Your task to perform on an android device: read, delete, or share a saved page in the chrome app Image 0: 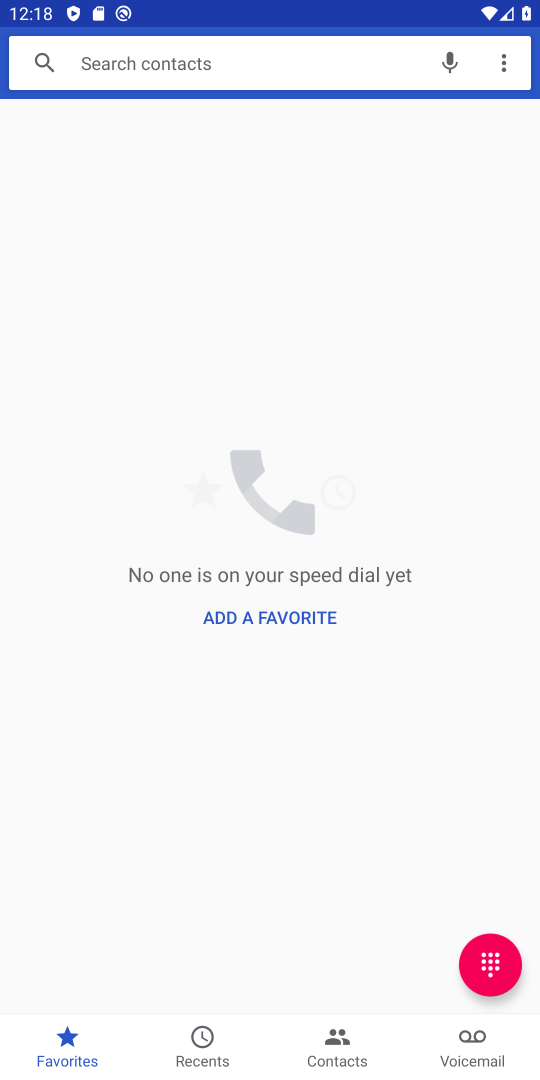
Step 0: press home button
Your task to perform on an android device: read, delete, or share a saved page in the chrome app Image 1: 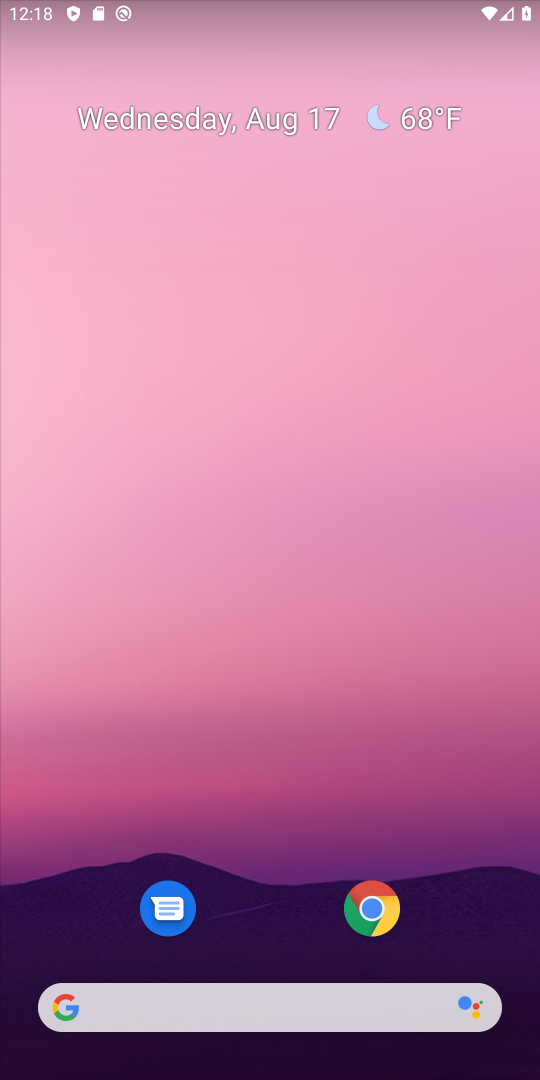
Step 1: click (355, 929)
Your task to perform on an android device: read, delete, or share a saved page in the chrome app Image 2: 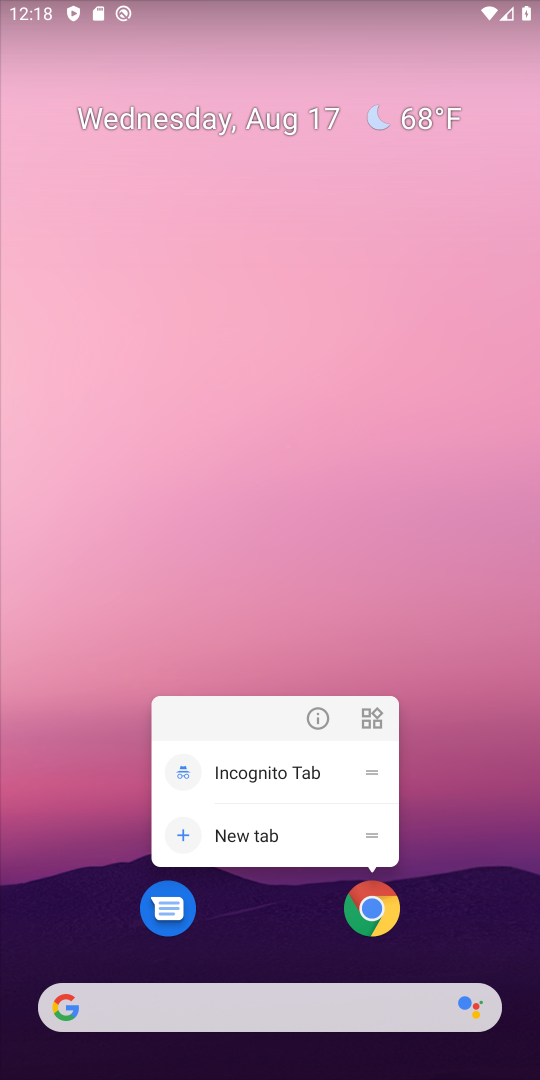
Step 2: click (386, 901)
Your task to perform on an android device: read, delete, or share a saved page in the chrome app Image 3: 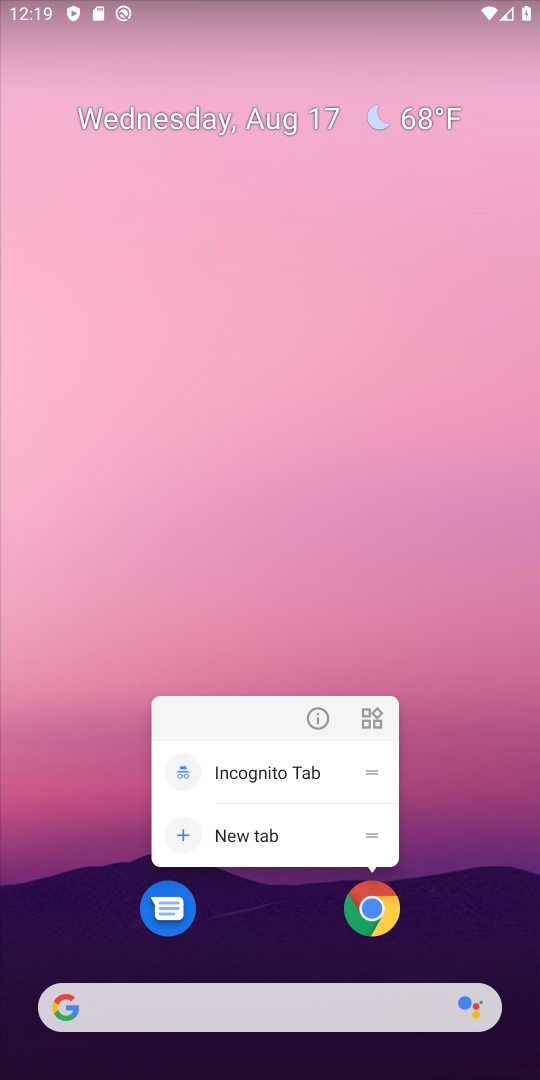
Step 3: click (391, 892)
Your task to perform on an android device: read, delete, or share a saved page in the chrome app Image 4: 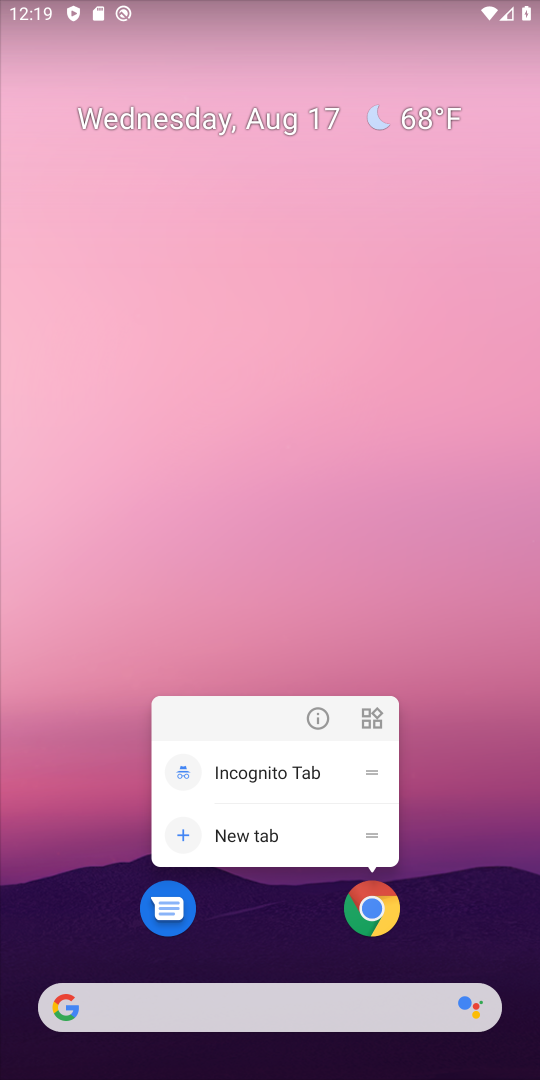
Step 4: click (360, 893)
Your task to perform on an android device: read, delete, or share a saved page in the chrome app Image 5: 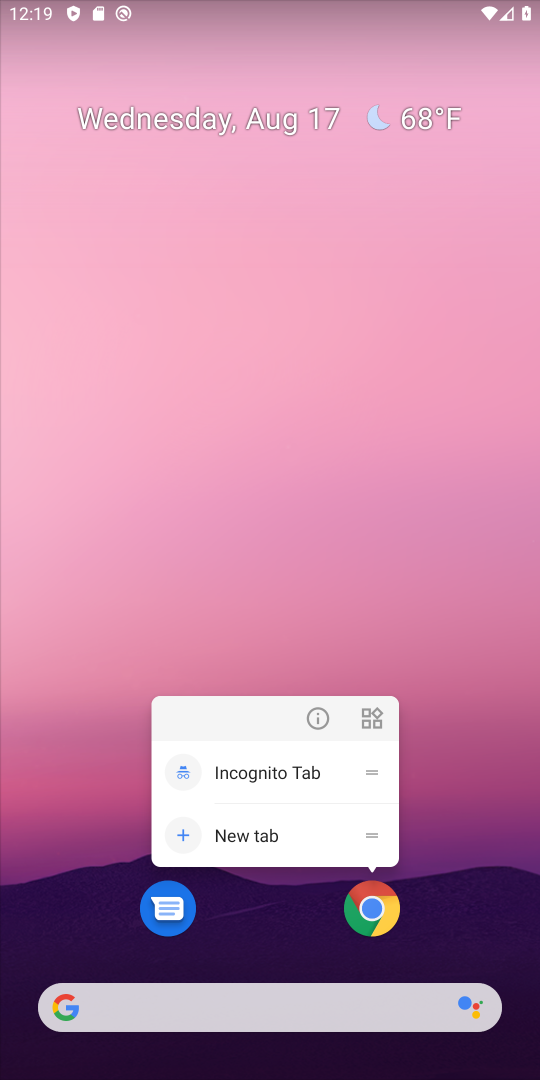
Step 5: click (375, 910)
Your task to perform on an android device: read, delete, or share a saved page in the chrome app Image 6: 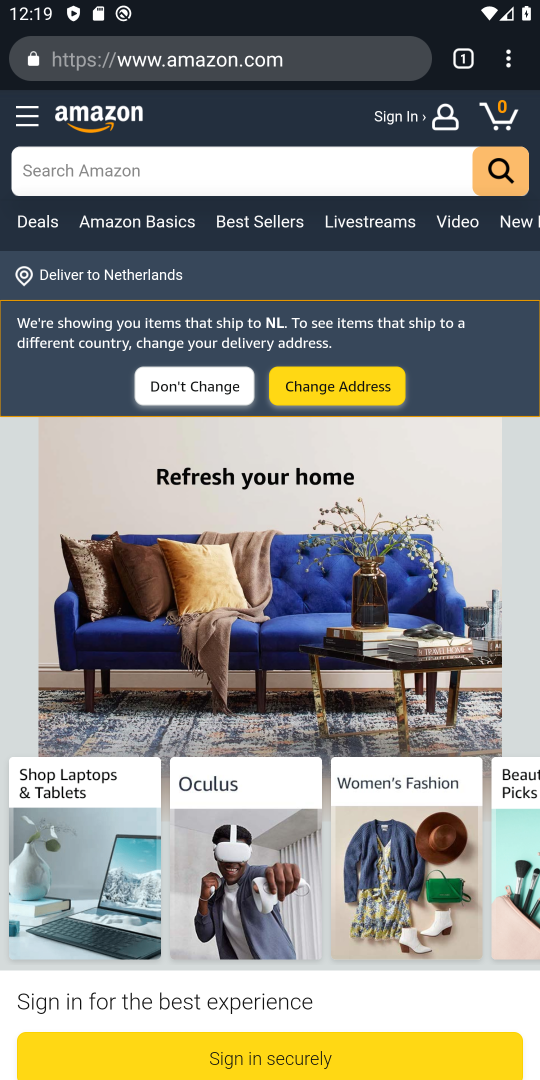
Step 6: click (516, 54)
Your task to perform on an android device: read, delete, or share a saved page in the chrome app Image 7: 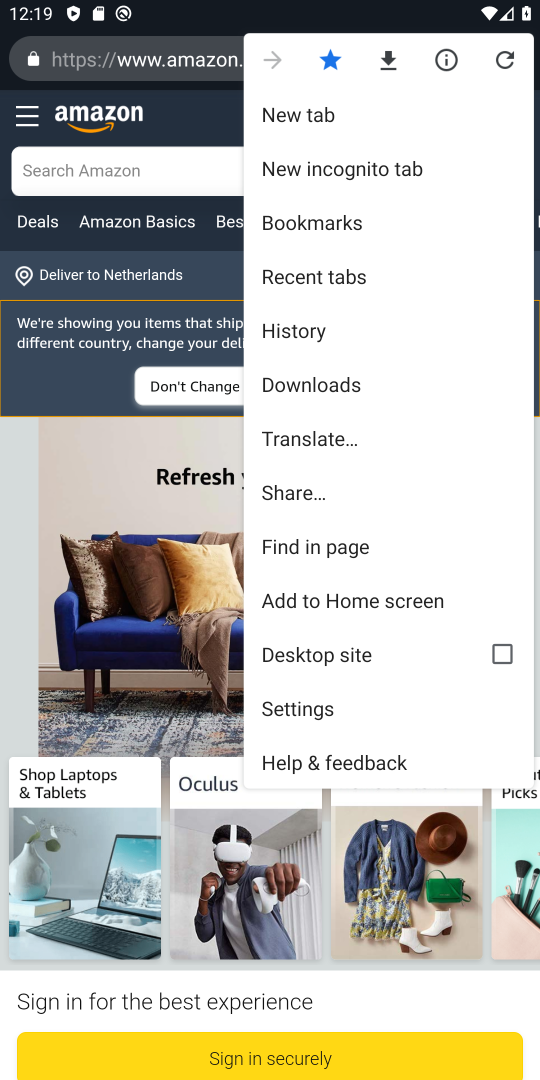
Step 7: click (374, 384)
Your task to perform on an android device: read, delete, or share a saved page in the chrome app Image 8: 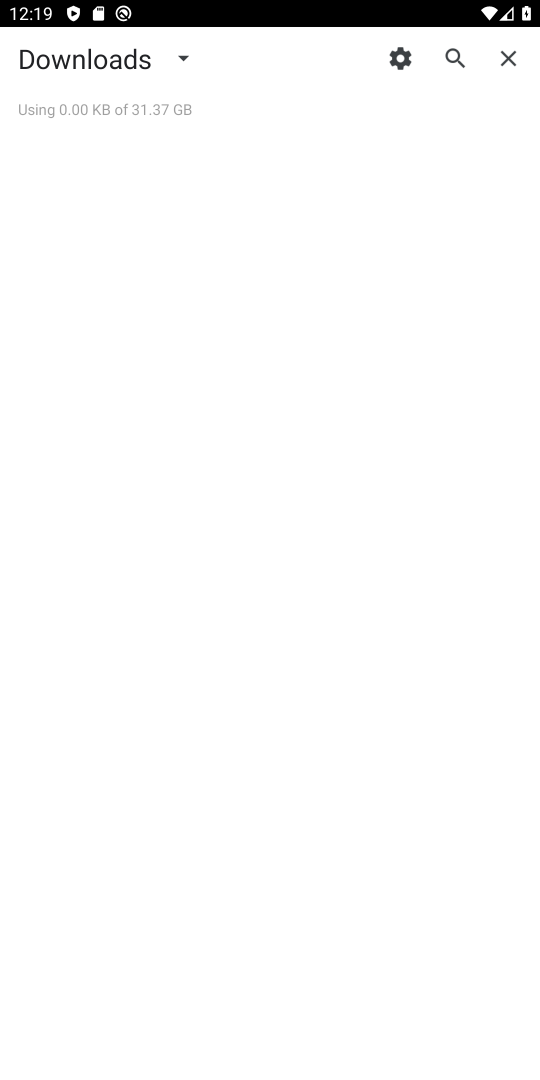
Step 8: click (183, 55)
Your task to perform on an android device: read, delete, or share a saved page in the chrome app Image 9: 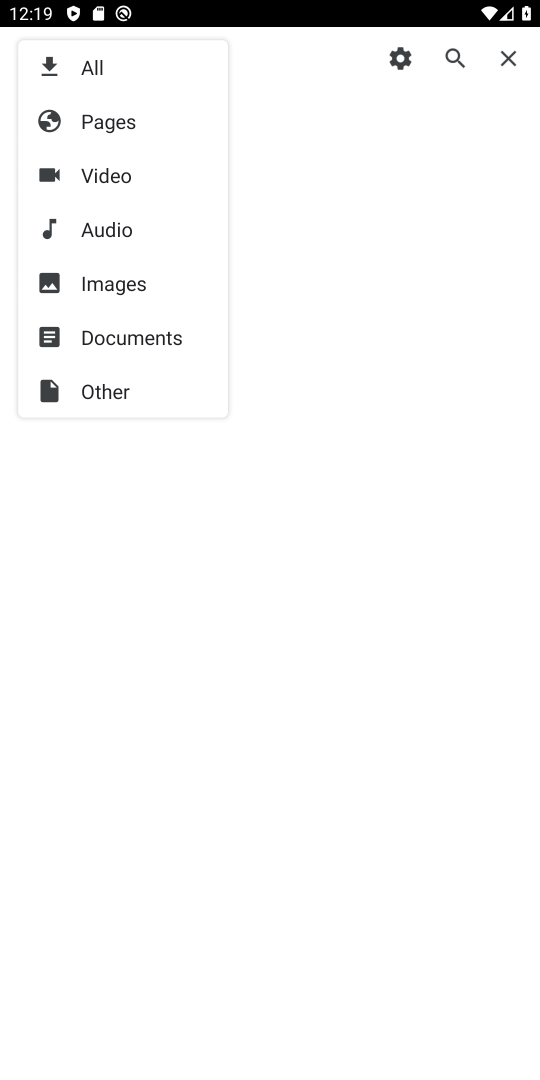
Step 9: click (98, 129)
Your task to perform on an android device: read, delete, or share a saved page in the chrome app Image 10: 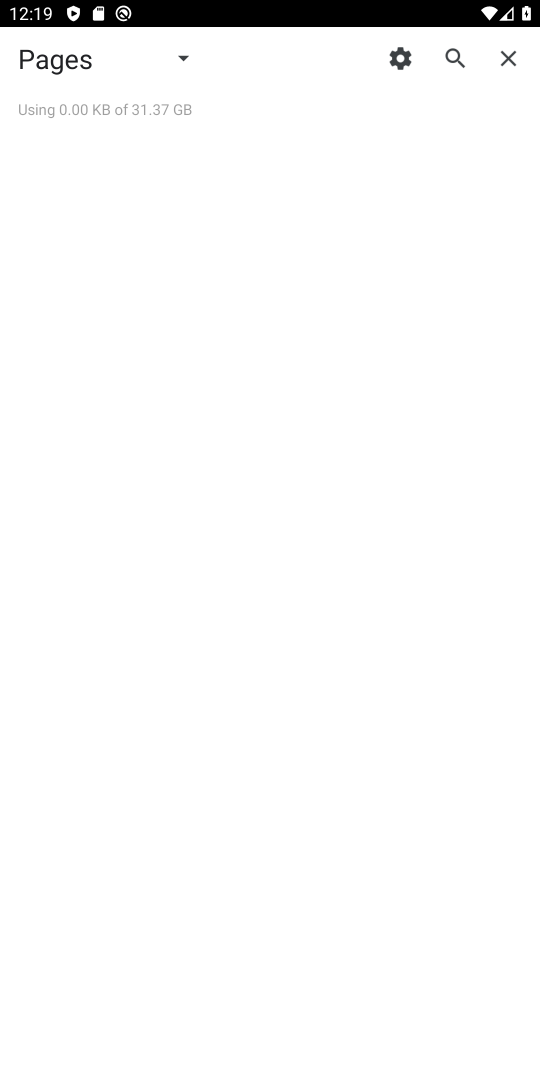
Step 10: task complete